Your task to perform on an android device: Open Chrome and go to settings Image 0: 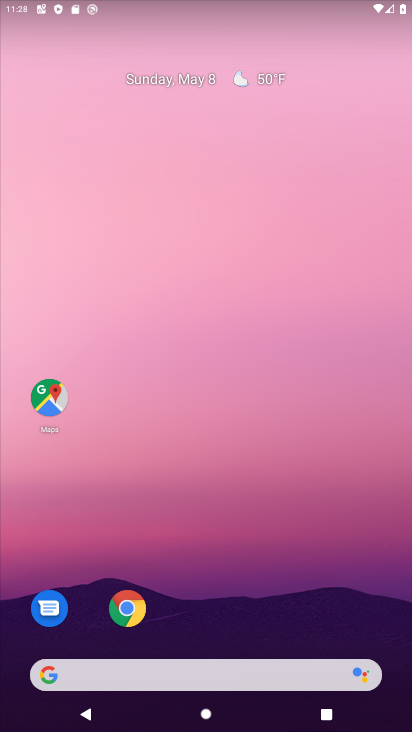
Step 0: drag from (300, 460) to (320, 78)
Your task to perform on an android device: Open Chrome and go to settings Image 1: 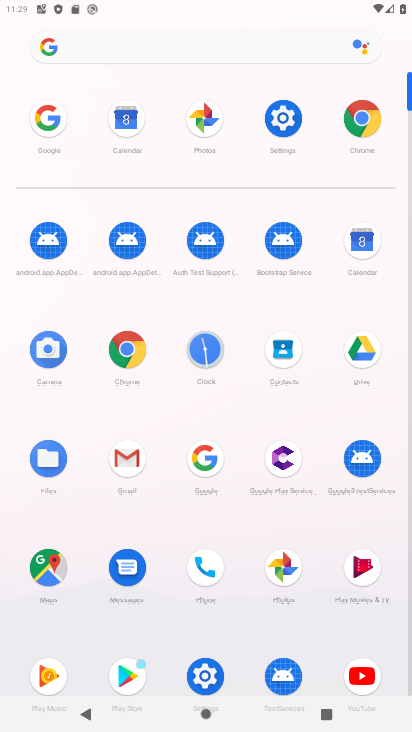
Step 1: click (294, 103)
Your task to perform on an android device: Open Chrome and go to settings Image 2: 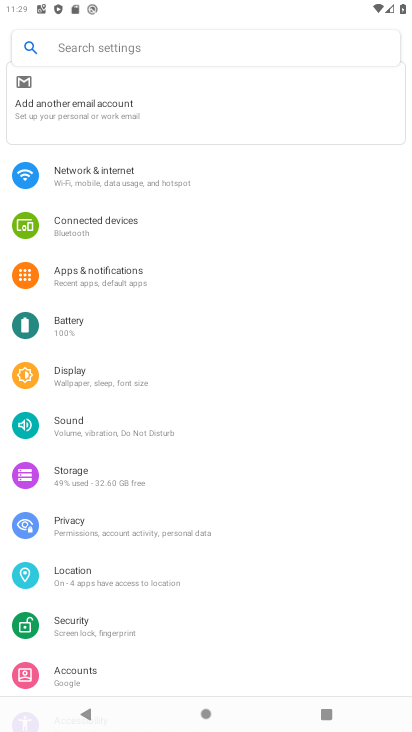
Step 2: press home button
Your task to perform on an android device: Open Chrome and go to settings Image 3: 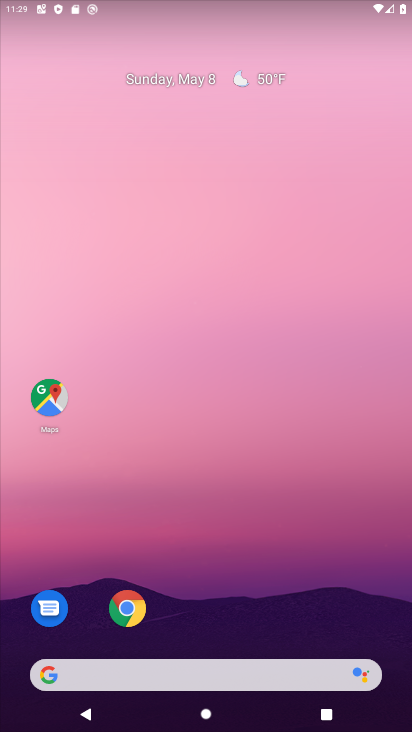
Step 3: drag from (290, 577) to (350, 84)
Your task to perform on an android device: Open Chrome and go to settings Image 4: 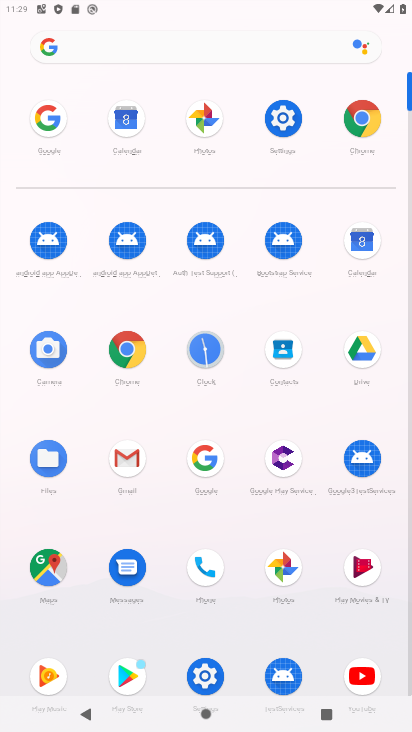
Step 4: click (373, 115)
Your task to perform on an android device: Open Chrome and go to settings Image 5: 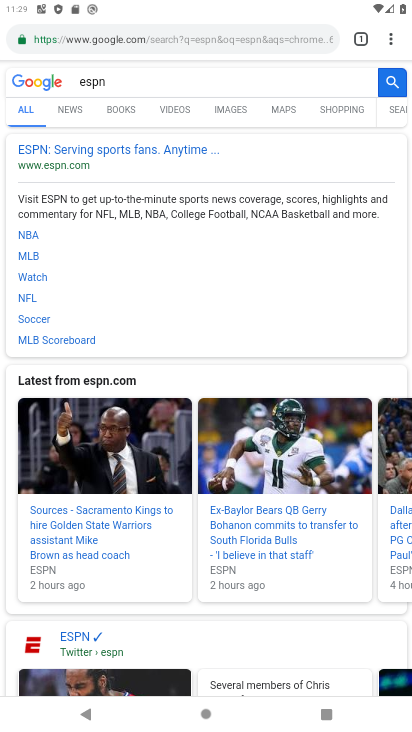
Step 5: task complete